Your task to perform on an android device: change the clock display to show seconds Image 0: 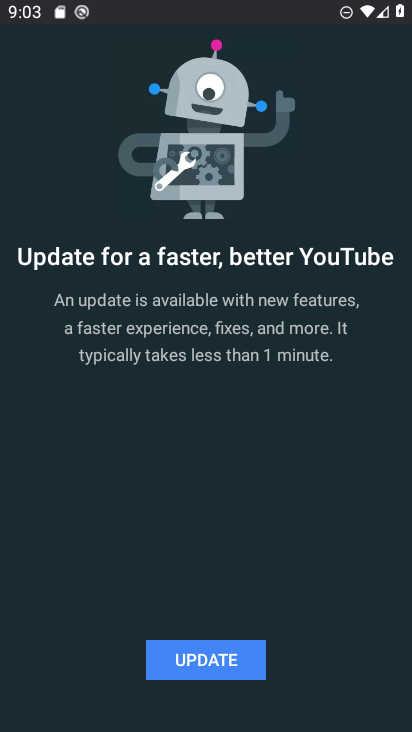
Step 0: press home button
Your task to perform on an android device: change the clock display to show seconds Image 1: 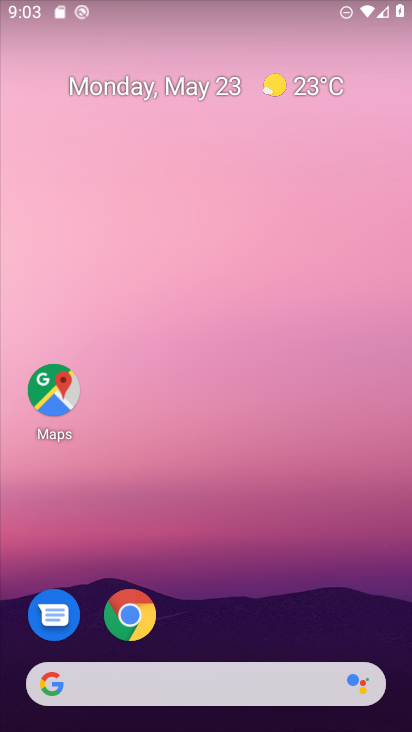
Step 1: drag from (226, 558) to (219, 174)
Your task to perform on an android device: change the clock display to show seconds Image 2: 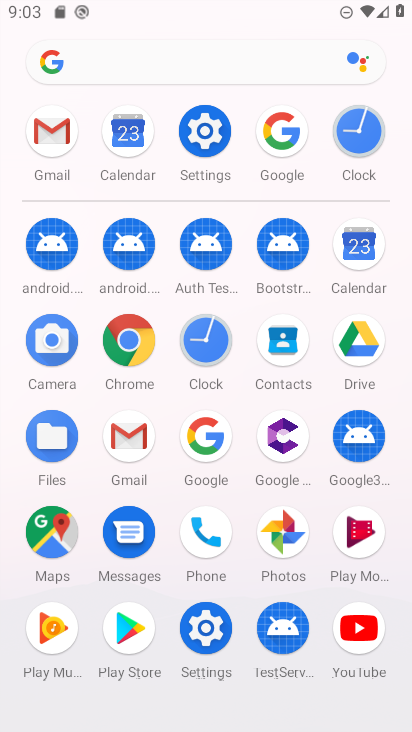
Step 2: click (358, 131)
Your task to perform on an android device: change the clock display to show seconds Image 3: 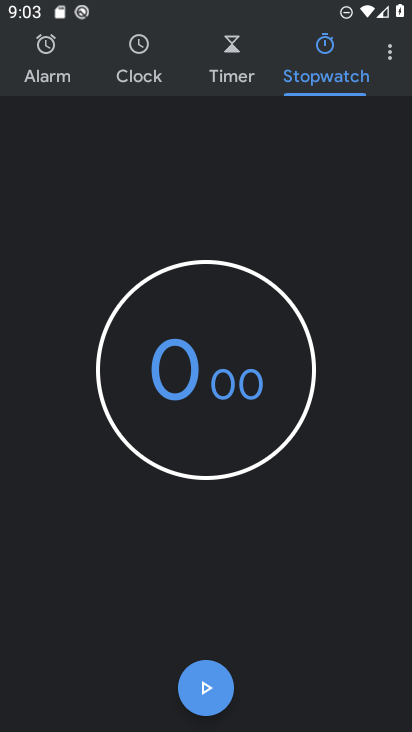
Step 3: click (390, 52)
Your task to perform on an android device: change the clock display to show seconds Image 4: 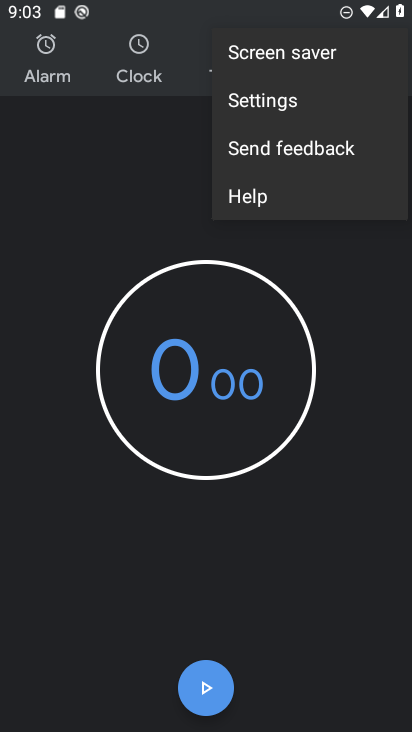
Step 4: click (301, 107)
Your task to perform on an android device: change the clock display to show seconds Image 5: 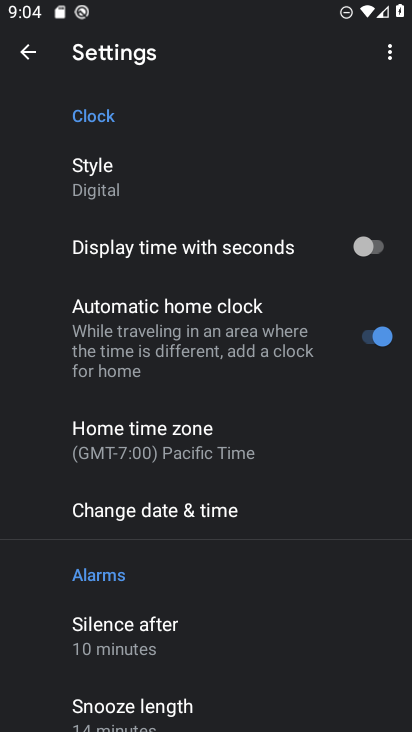
Step 5: click (369, 259)
Your task to perform on an android device: change the clock display to show seconds Image 6: 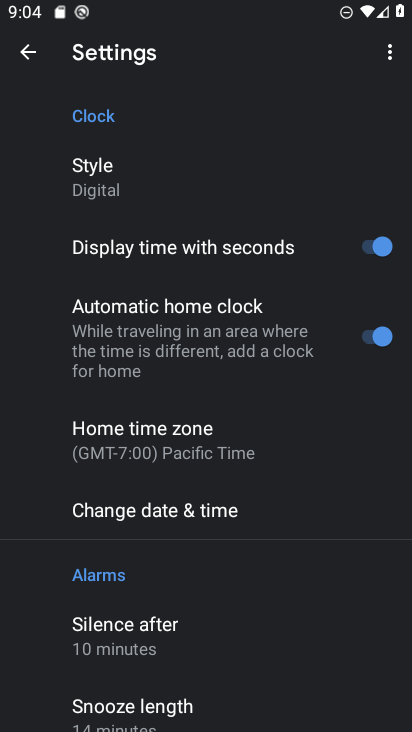
Step 6: task complete